Your task to perform on an android device: See recent photos Image 0: 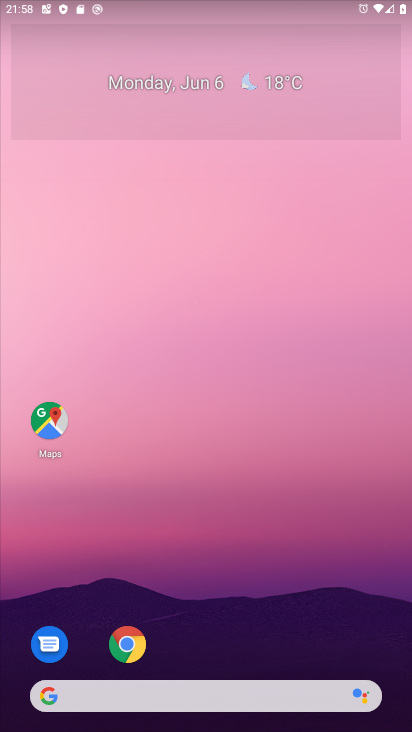
Step 0: press home button
Your task to perform on an android device: See recent photos Image 1: 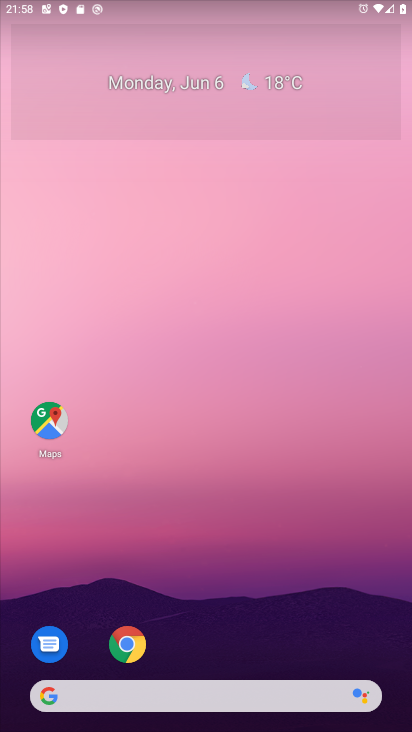
Step 1: drag from (376, 622) to (371, 83)
Your task to perform on an android device: See recent photos Image 2: 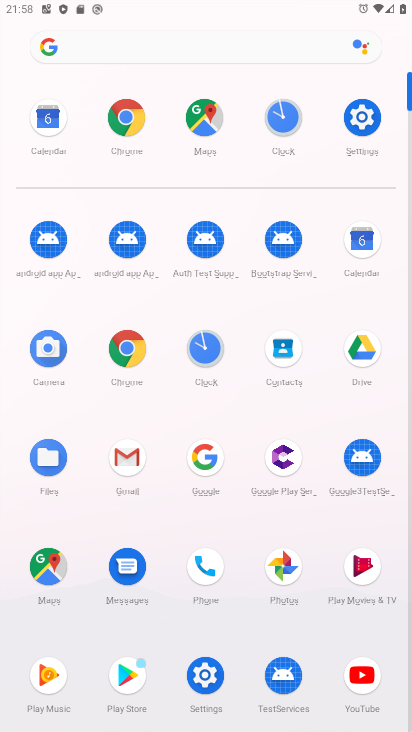
Step 2: click (264, 564)
Your task to perform on an android device: See recent photos Image 3: 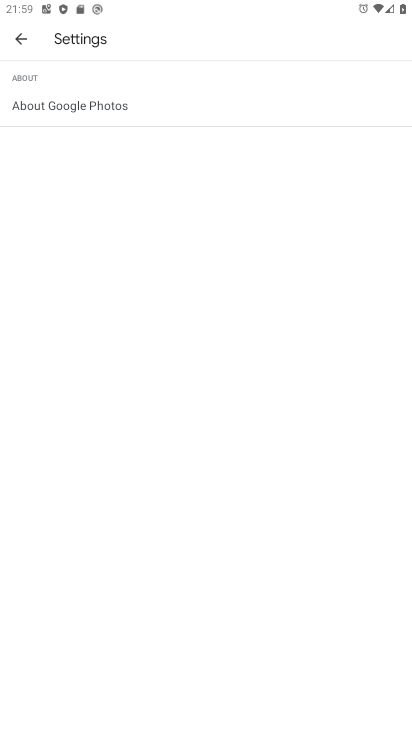
Step 3: click (28, 42)
Your task to perform on an android device: See recent photos Image 4: 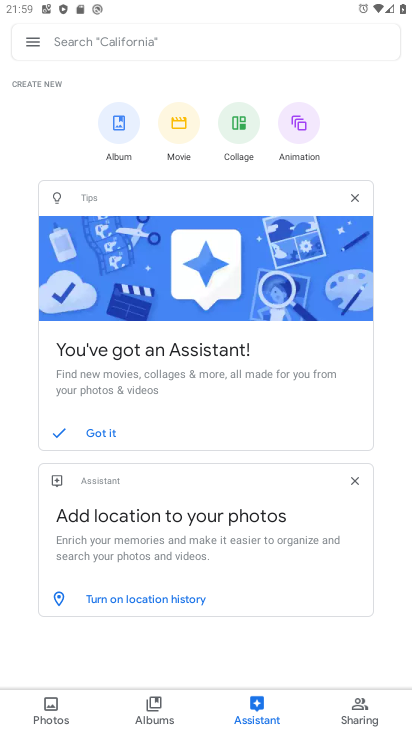
Step 4: click (70, 705)
Your task to perform on an android device: See recent photos Image 5: 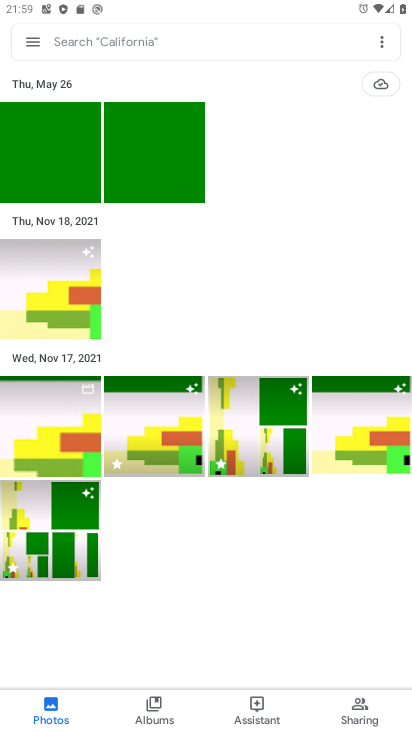
Step 5: task complete